Your task to perform on an android device: See recent photos Image 0: 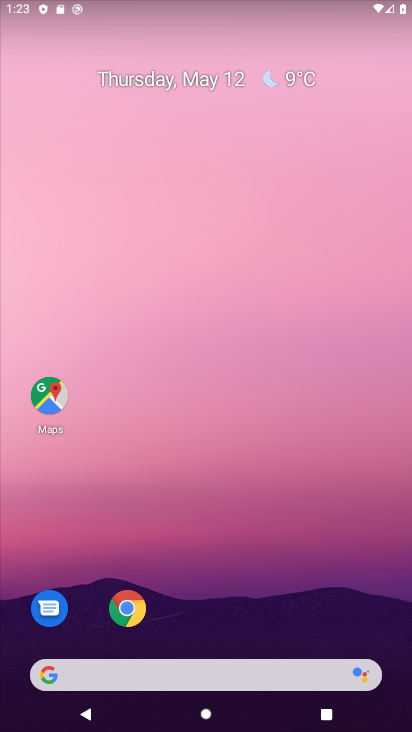
Step 0: drag from (252, 622) to (181, 304)
Your task to perform on an android device: See recent photos Image 1: 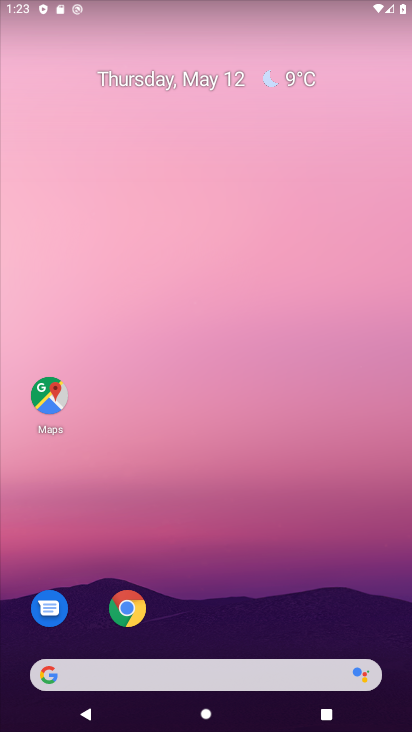
Step 1: drag from (191, 615) to (157, 53)
Your task to perform on an android device: See recent photos Image 2: 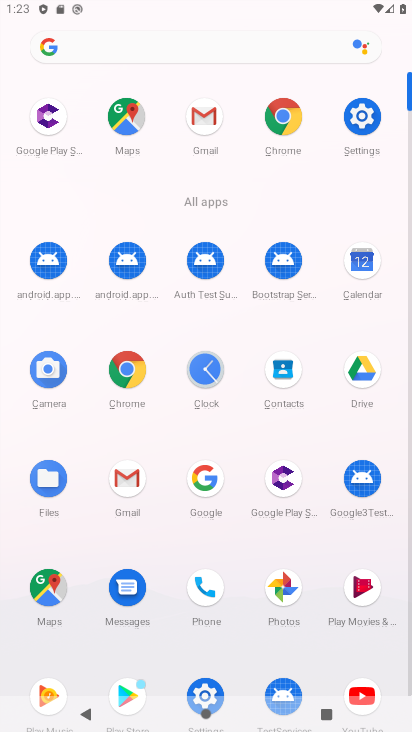
Step 2: click (283, 604)
Your task to perform on an android device: See recent photos Image 3: 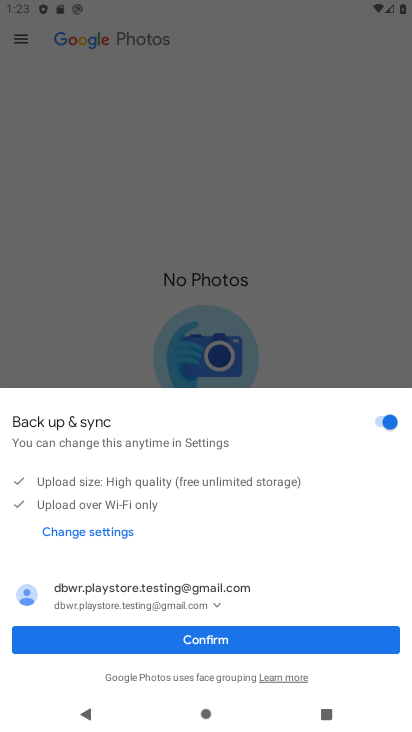
Step 3: click (265, 639)
Your task to perform on an android device: See recent photos Image 4: 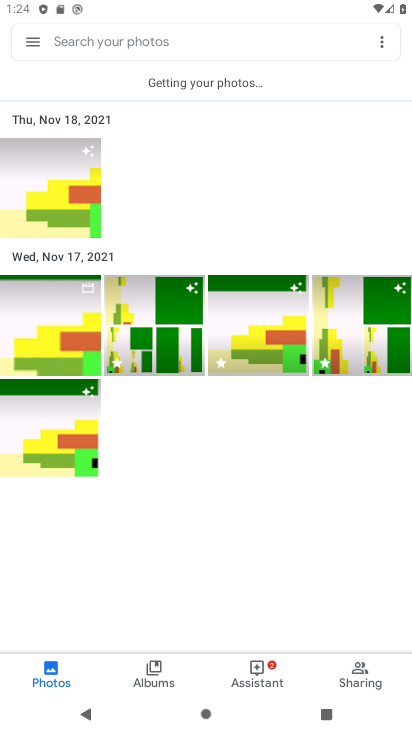
Step 4: task complete